Your task to perform on an android device: install app "The Home Depot" Image 0: 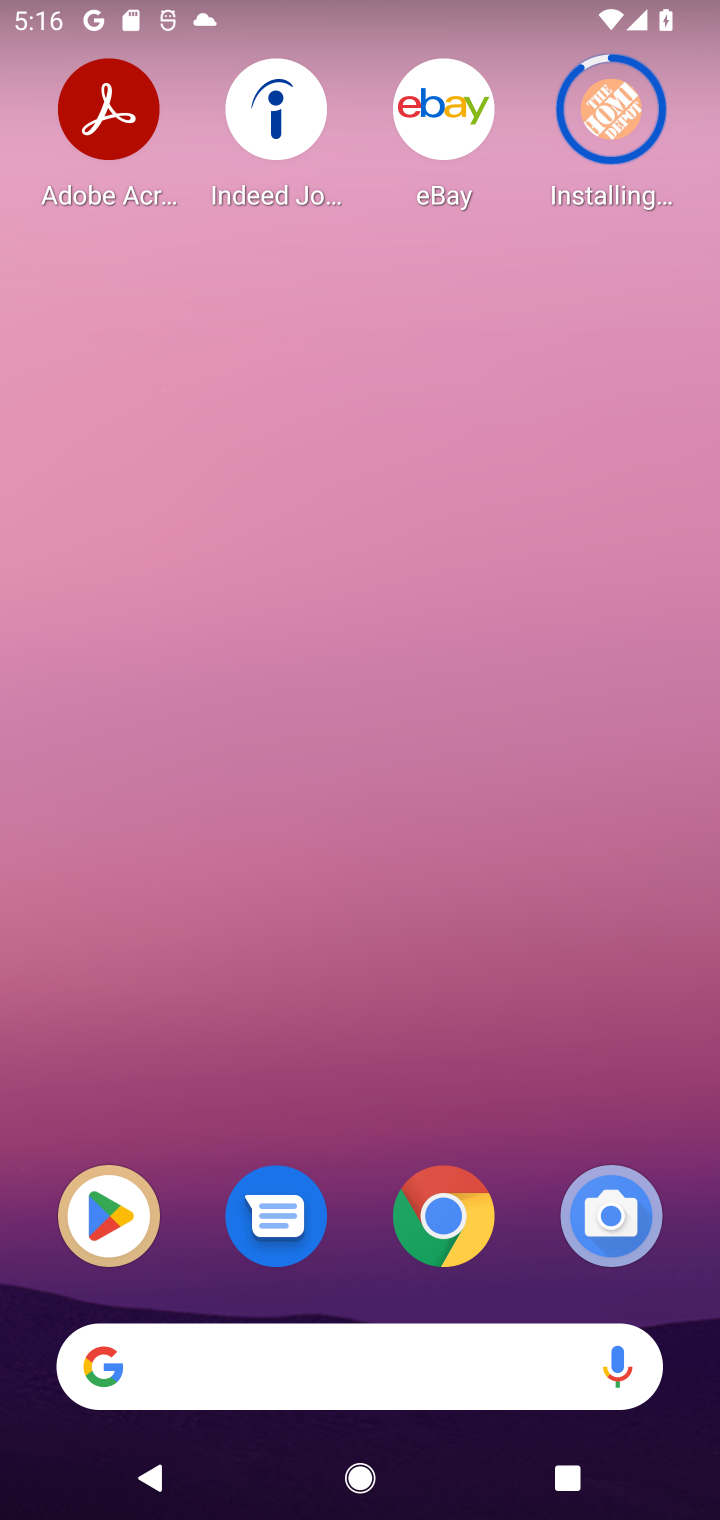
Step 0: click (107, 1201)
Your task to perform on an android device: install app "The Home Depot" Image 1: 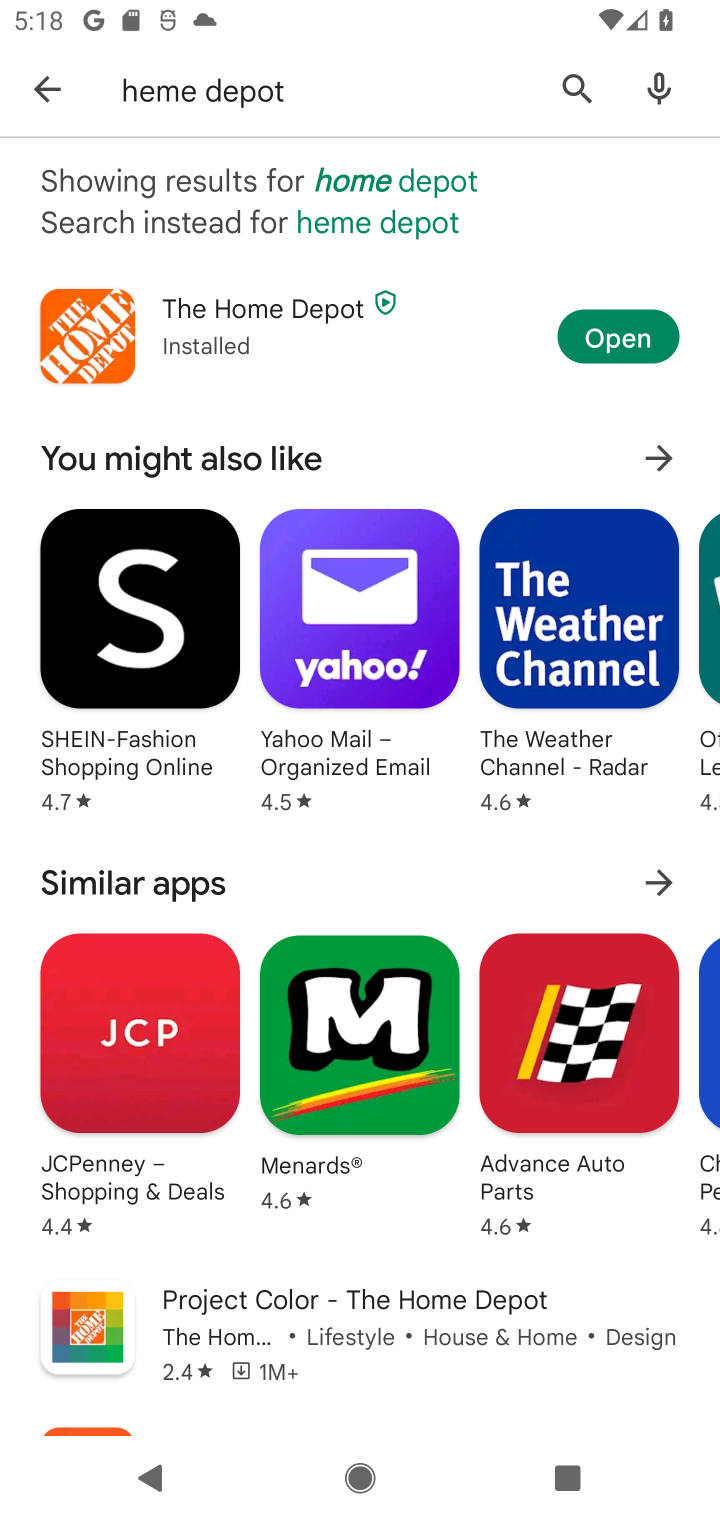
Step 1: task complete